Your task to perform on an android device: open a bookmark in the chrome app Image 0: 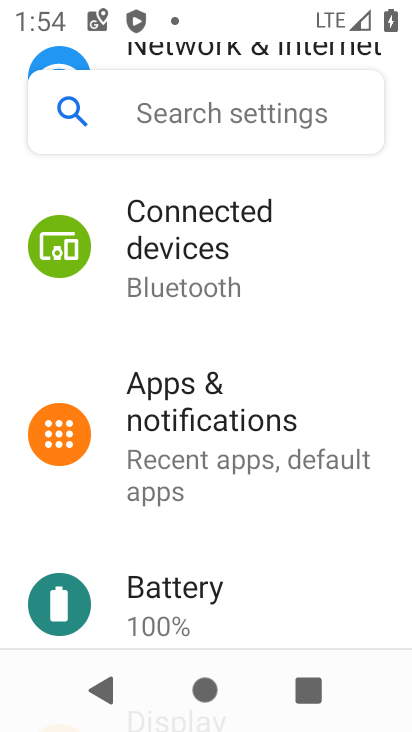
Step 0: press home button
Your task to perform on an android device: open a bookmark in the chrome app Image 1: 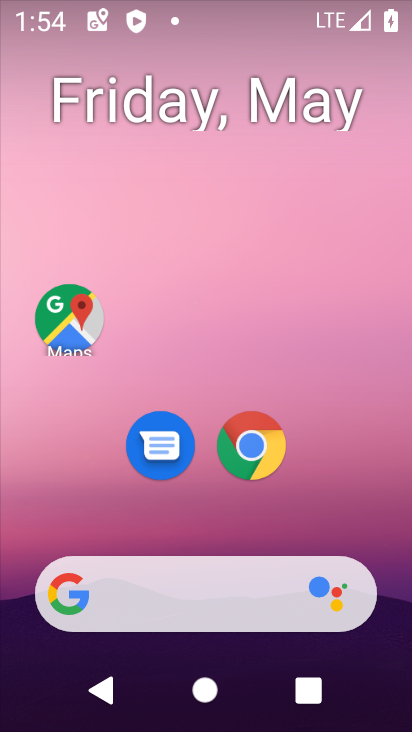
Step 1: click (247, 440)
Your task to perform on an android device: open a bookmark in the chrome app Image 2: 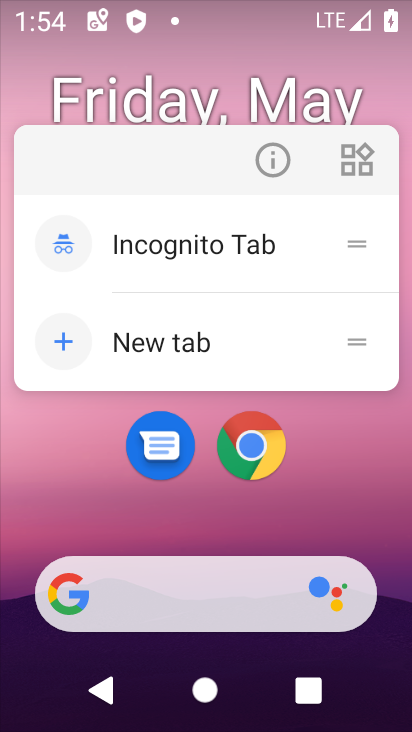
Step 2: click (250, 439)
Your task to perform on an android device: open a bookmark in the chrome app Image 3: 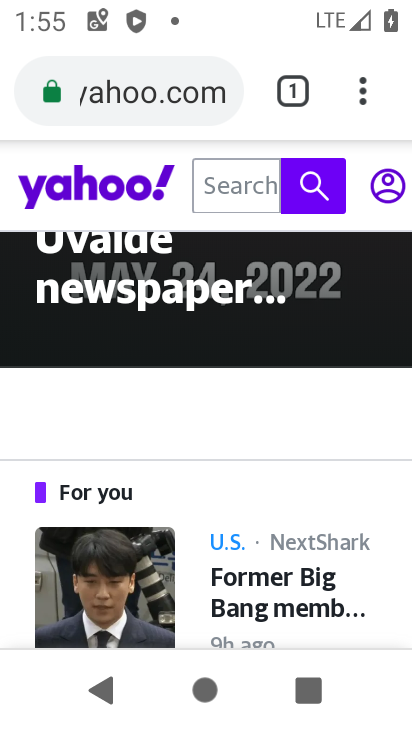
Step 3: click (365, 87)
Your task to perform on an android device: open a bookmark in the chrome app Image 4: 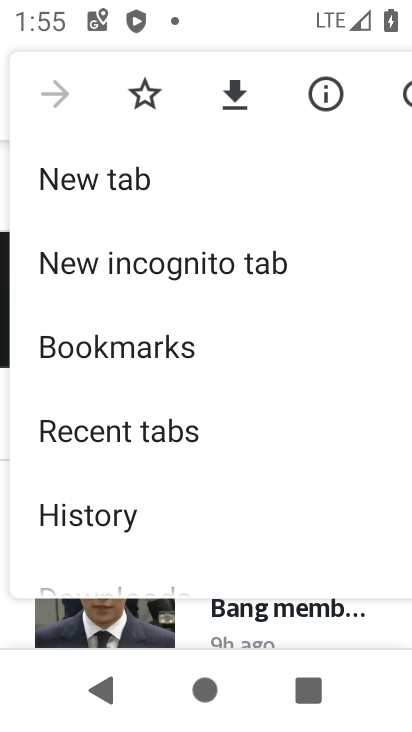
Step 4: click (211, 346)
Your task to perform on an android device: open a bookmark in the chrome app Image 5: 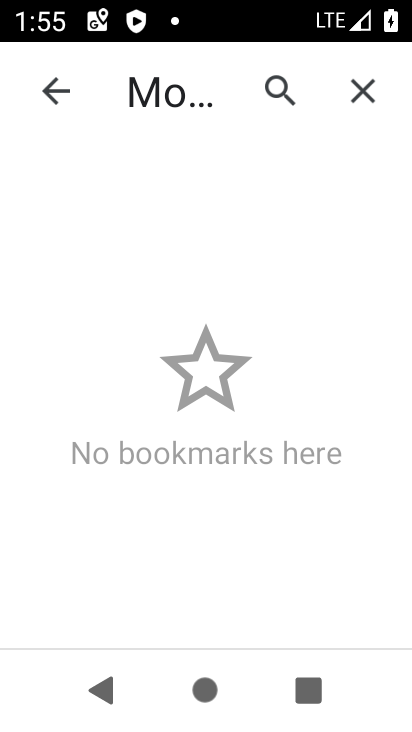
Step 5: task complete